Your task to perform on an android device: What's the weather going to be tomorrow? Image 0: 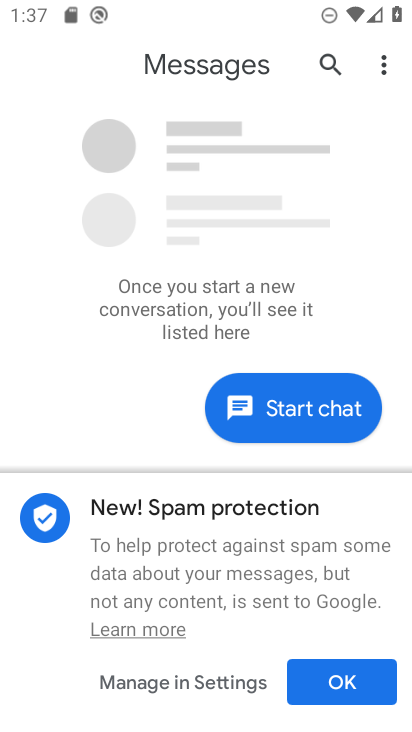
Step 0: press home button
Your task to perform on an android device: What's the weather going to be tomorrow? Image 1: 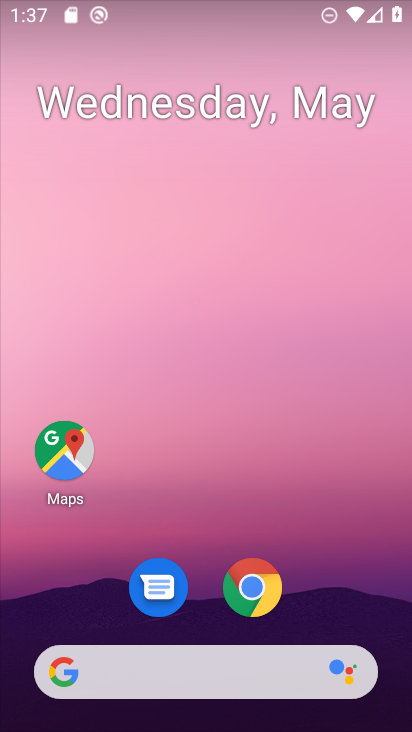
Step 1: drag from (312, 623) to (323, 276)
Your task to perform on an android device: What's the weather going to be tomorrow? Image 2: 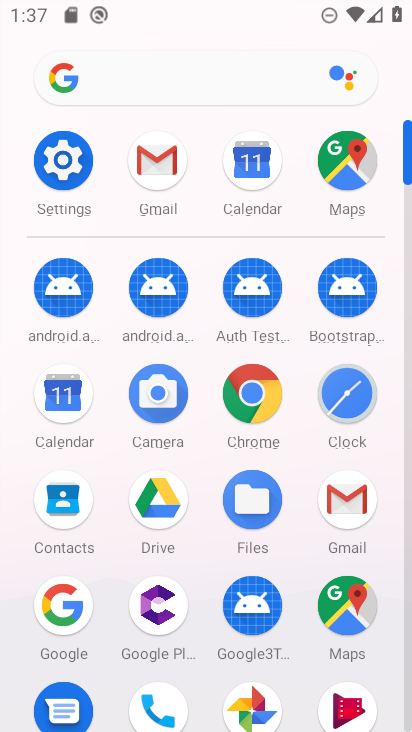
Step 2: click (74, 641)
Your task to perform on an android device: What's the weather going to be tomorrow? Image 3: 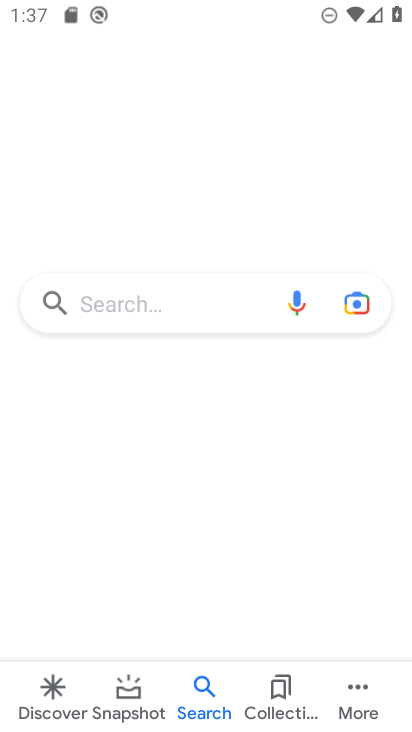
Step 3: click (125, 313)
Your task to perform on an android device: What's the weather going to be tomorrow? Image 4: 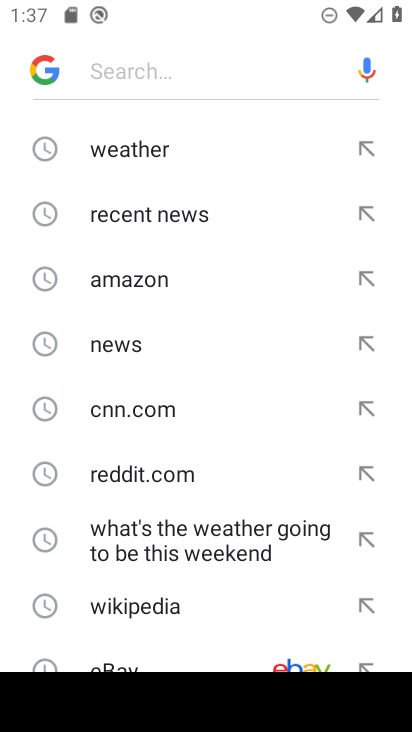
Step 4: click (137, 164)
Your task to perform on an android device: What's the weather going to be tomorrow? Image 5: 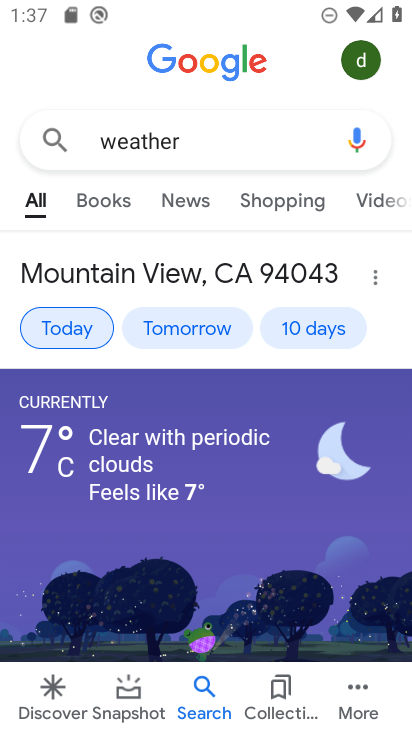
Step 5: click (208, 335)
Your task to perform on an android device: What's the weather going to be tomorrow? Image 6: 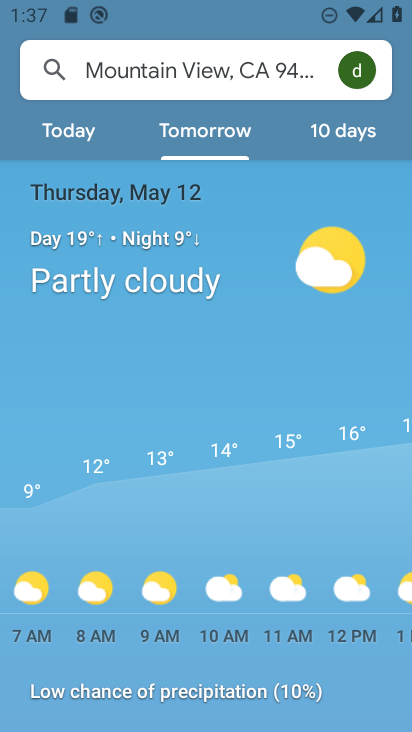
Step 6: task complete